Your task to perform on an android device: Show me the alarms in the clock app Image 0: 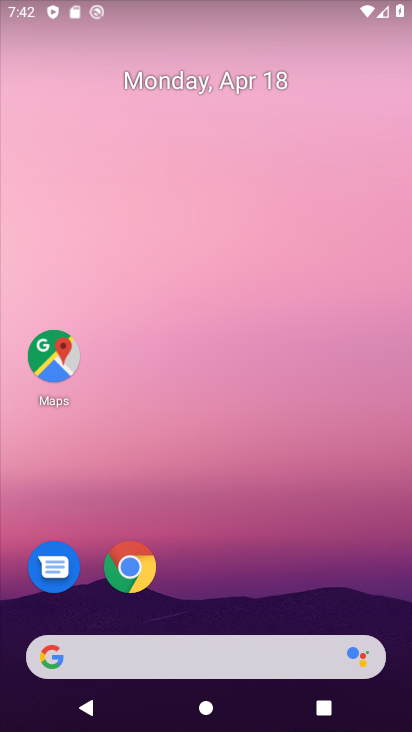
Step 0: drag from (297, 687) to (262, 35)
Your task to perform on an android device: Show me the alarms in the clock app Image 1: 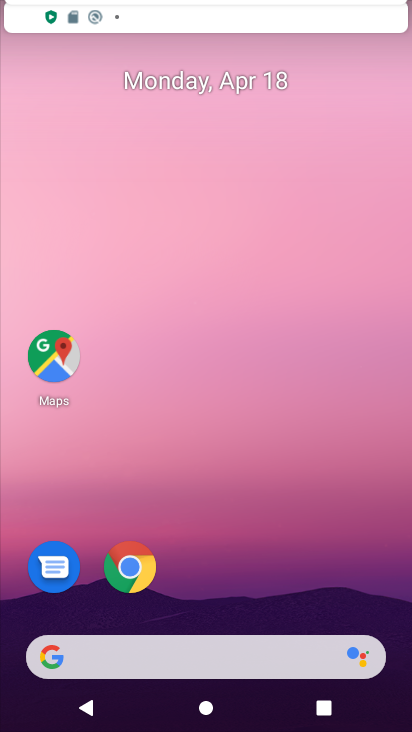
Step 1: drag from (256, 301) to (255, 219)
Your task to perform on an android device: Show me the alarms in the clock app Image 2: 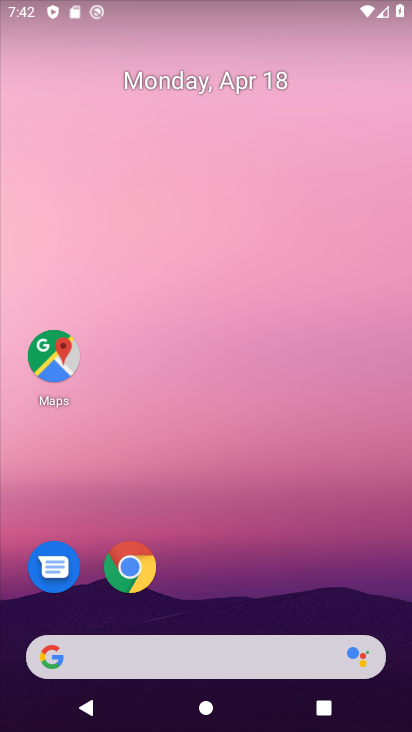
Step 2: drag from (217, 514) to (256, 0)
Your task to perform on an android device: Show me the alarms in the clock app Image 3: 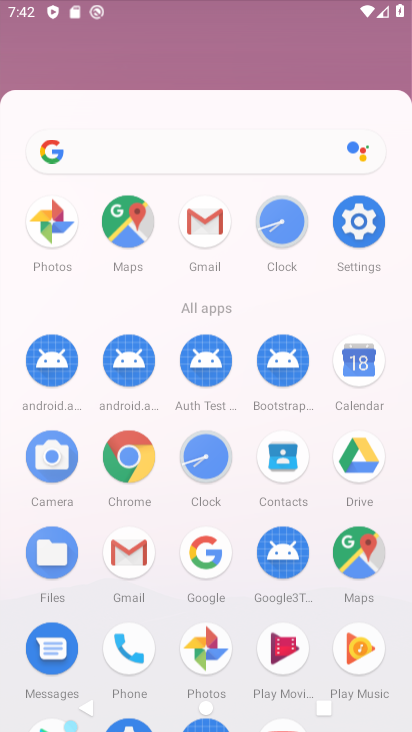
Step 3: drag from (282, 512) to (288, 214)
Your task to perform on an android device: Show me the alarms in the clock app Image 4: 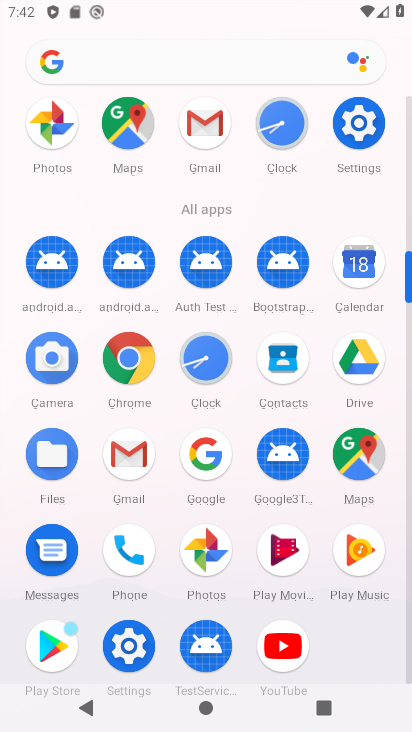
Step 4: click (286, 128)
Your task to perform on an android device: Show me the alarms in the clock app Image 5: 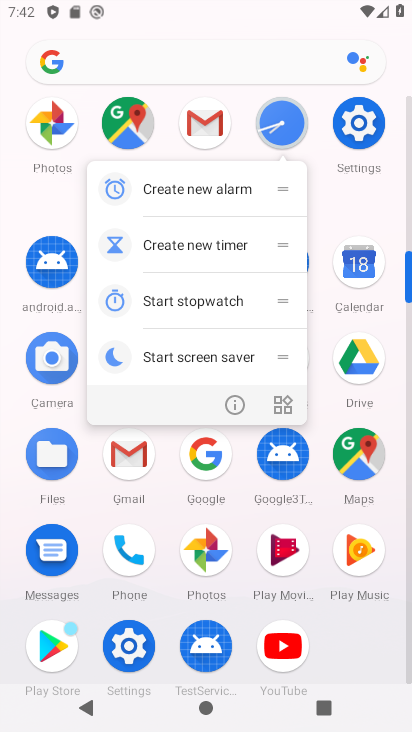
Step 5: click (286, 121)
Your task to perform on an android device: Show me the alarms in the clock app Image 6: 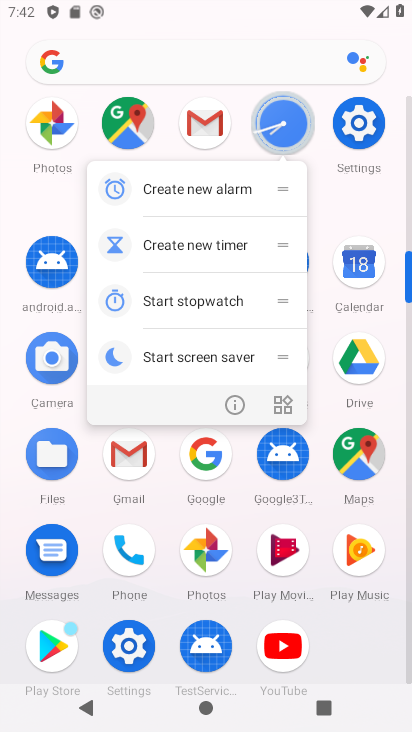
Step 6: click (290, 123)
Your task to perform on an android device: Show me the alarms in the clock app Image 7: 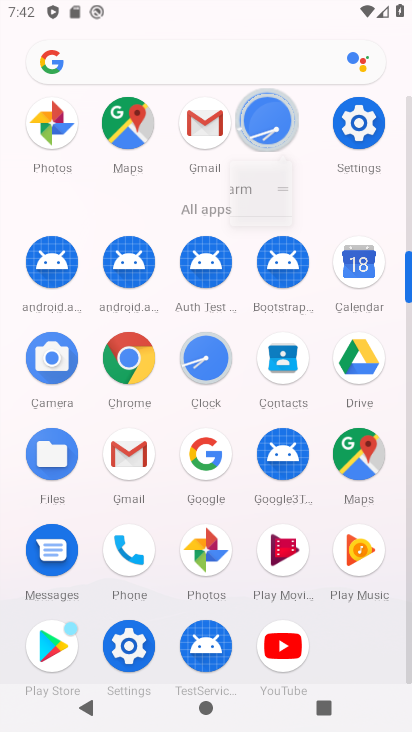
Step 7: click (277, 136)
Your task to perform on an android device: Show me the alarms in the clock app Image 8: 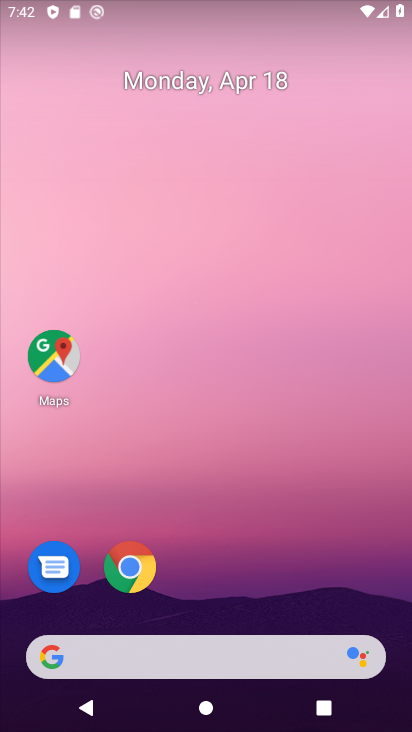
Step 8: drag from (253, 353) to (190, 23)
Your task to perform on an android device: Show me the alarms in the clock app Image 9: 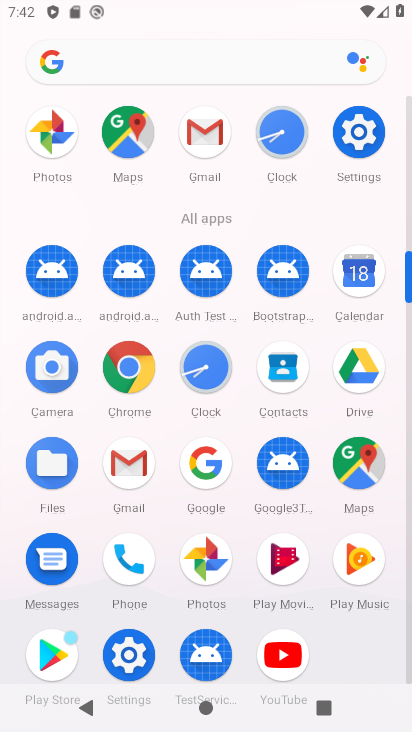
Step 9: click (283, 141)
Your task to perform on an android device: Show me the alarms in the clock app Image 10: 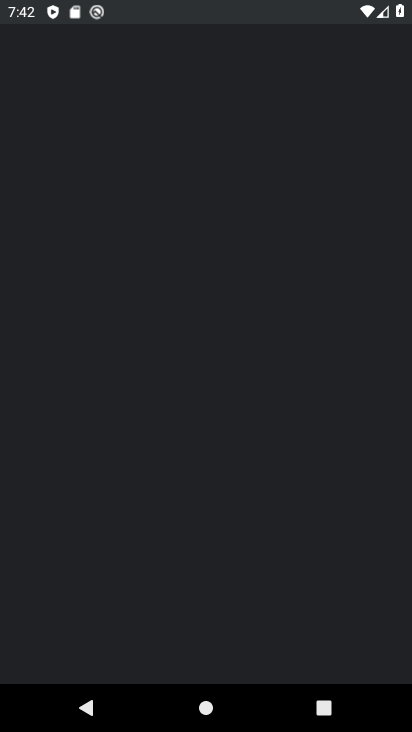
Step 10: click (283, 141)
Your task to perform on an android device: Show me the alarms in the clock app Image 11: 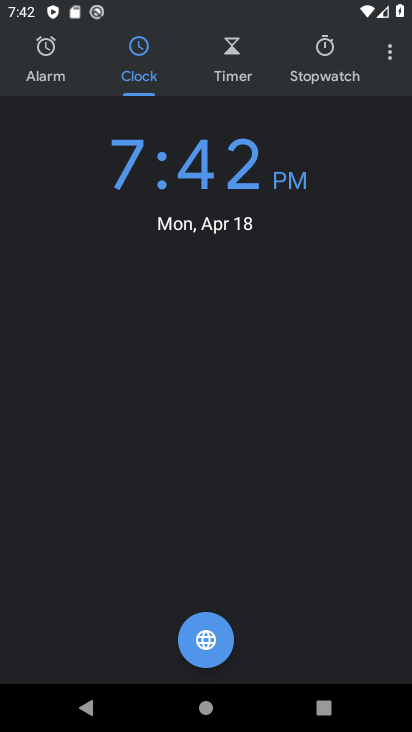
Step 11: click (45, 62)
Your task to perform on an android device: Show me the alarms in the clock app Image 12: 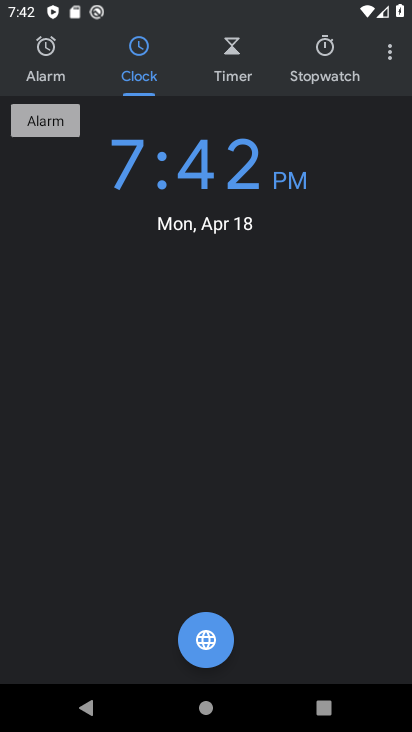
Step 12: click (57, 122)
Your task to perform on an android device: Show me the alarms in the clock app Image 13: 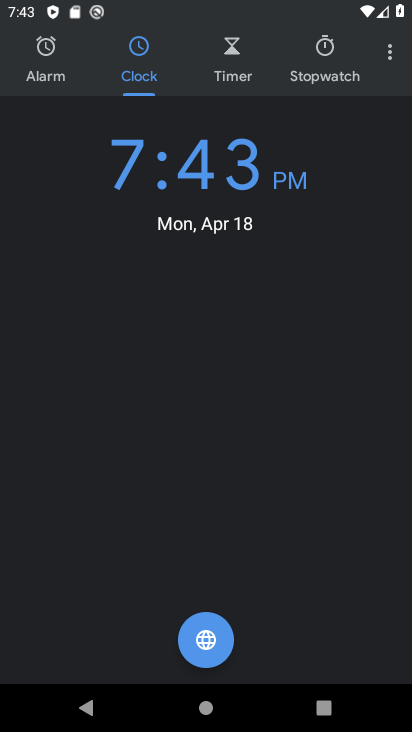
Step 13: click (35, 61)
Your task to perform on an android device: Show me the alarms in the clock app Image 14: 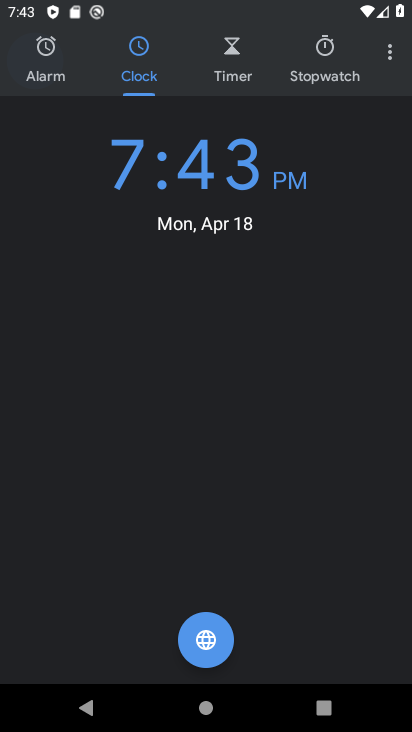
Step 14: click (38, 71)
Your task to perform on an android device: Show me the alarms in the clock app Image 15: 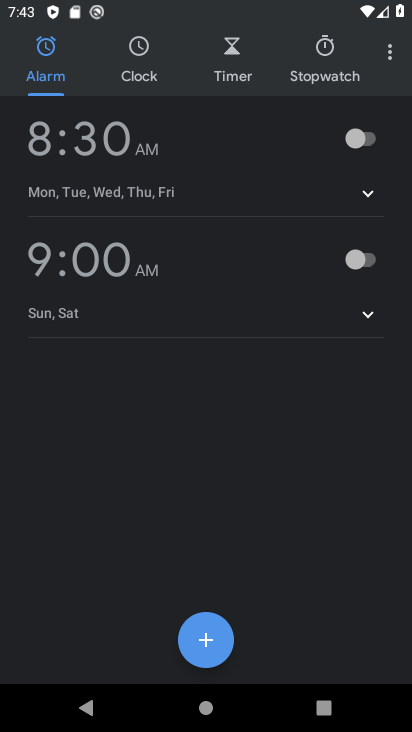
Step 15: task complete